Your task to perform on an android device: What's the weather going to be tomorrow? Image 0: 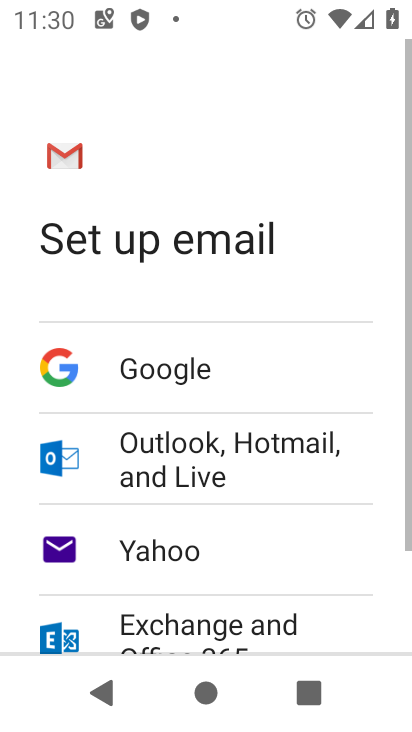
Step 0: press home button
Your task to perform on an android device: What's the weather going to be tomorrow? Image 1: 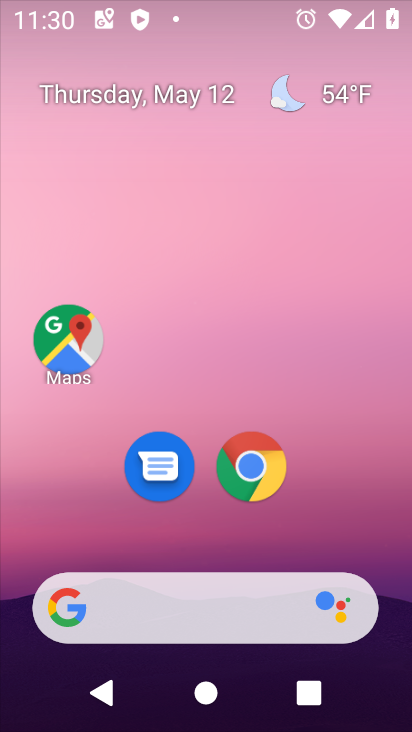
Step 1: drag from (376, 523) to (302, 268)
Your task to perform on an android device: What's the weather going to be tomorrow? Image 2: 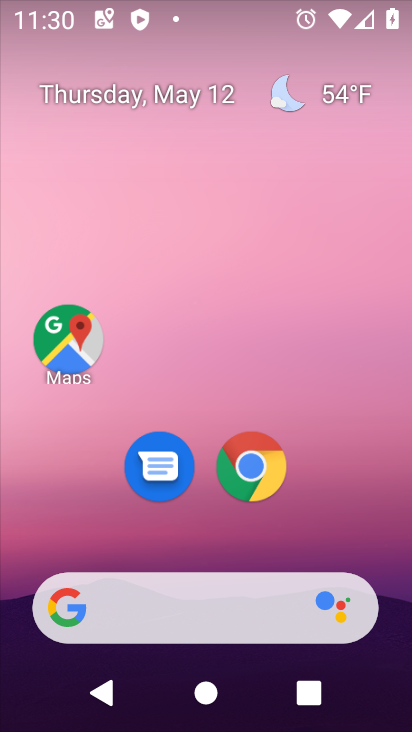
Step 2: drag from (395, 562) to (369, 138)
Your task to perform on an android device: What's the weather going to be tomorrow? Image 3: 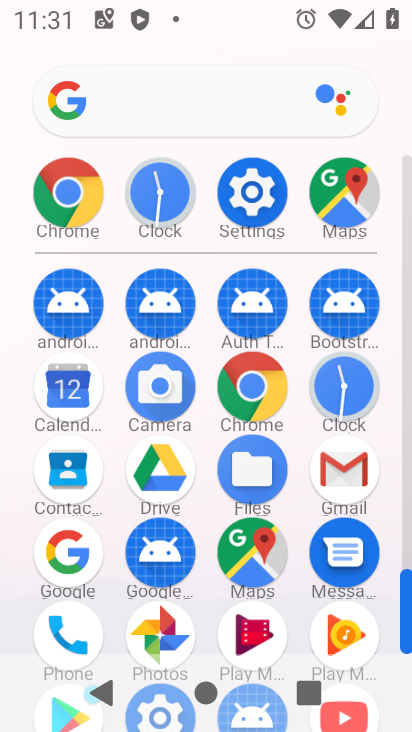
Step 3: click (269, 400)
Your task to perform on an android device: What's the weather going to be tomorrow? Image 4: 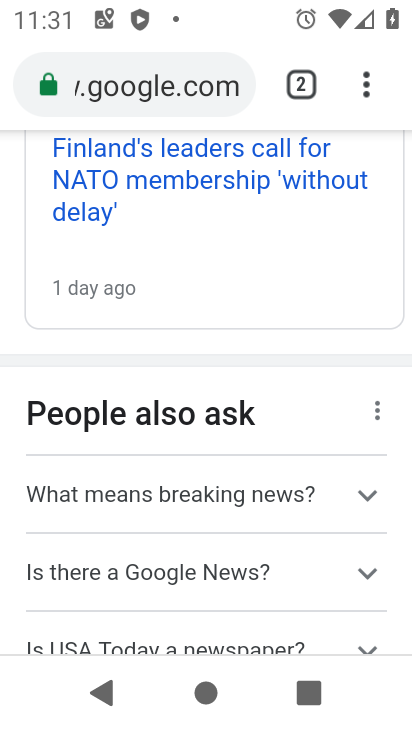
Step 4: click (192, 98)
Your task to perform on an android device: What's the weather going to be tomorrow? Image 5: 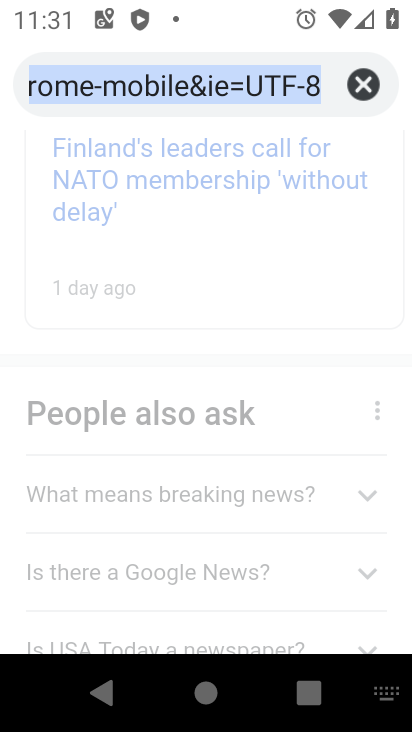
Step 5: click (365, 100)
Your task to perform on an android device: What's the weather going to be tomorrow? Image 6: 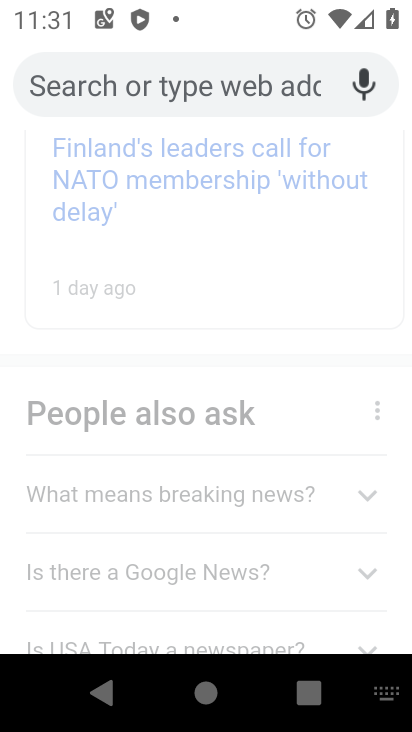
Step 6: type "what's the weather going to be tomorrow"
Your task to perform on an android device: What's the weather going to be tomorrow? Image 7: 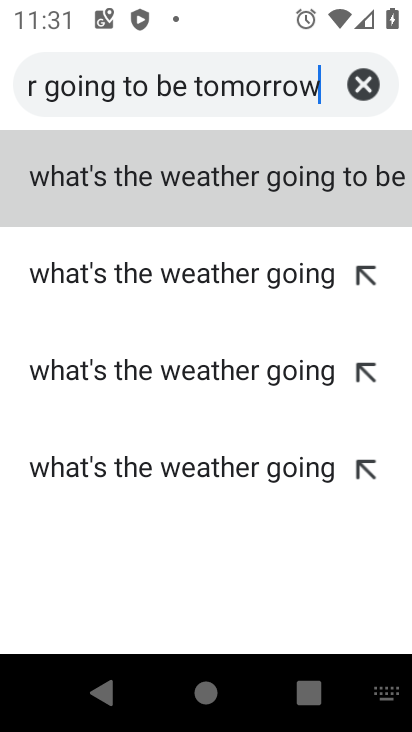
Step 7: click (286, 187)
Your task to perform on an android device: What's the weather going to be tomorrow? Image 8: 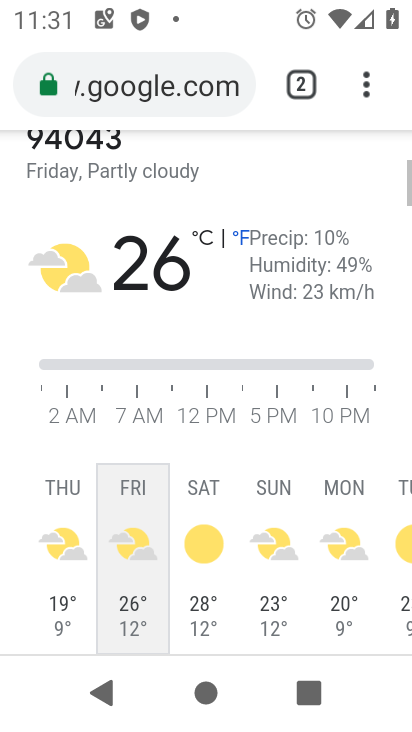
Step 8: task complete